Your task to perform on an android device: refresh tabs in the chrome app Image 0: 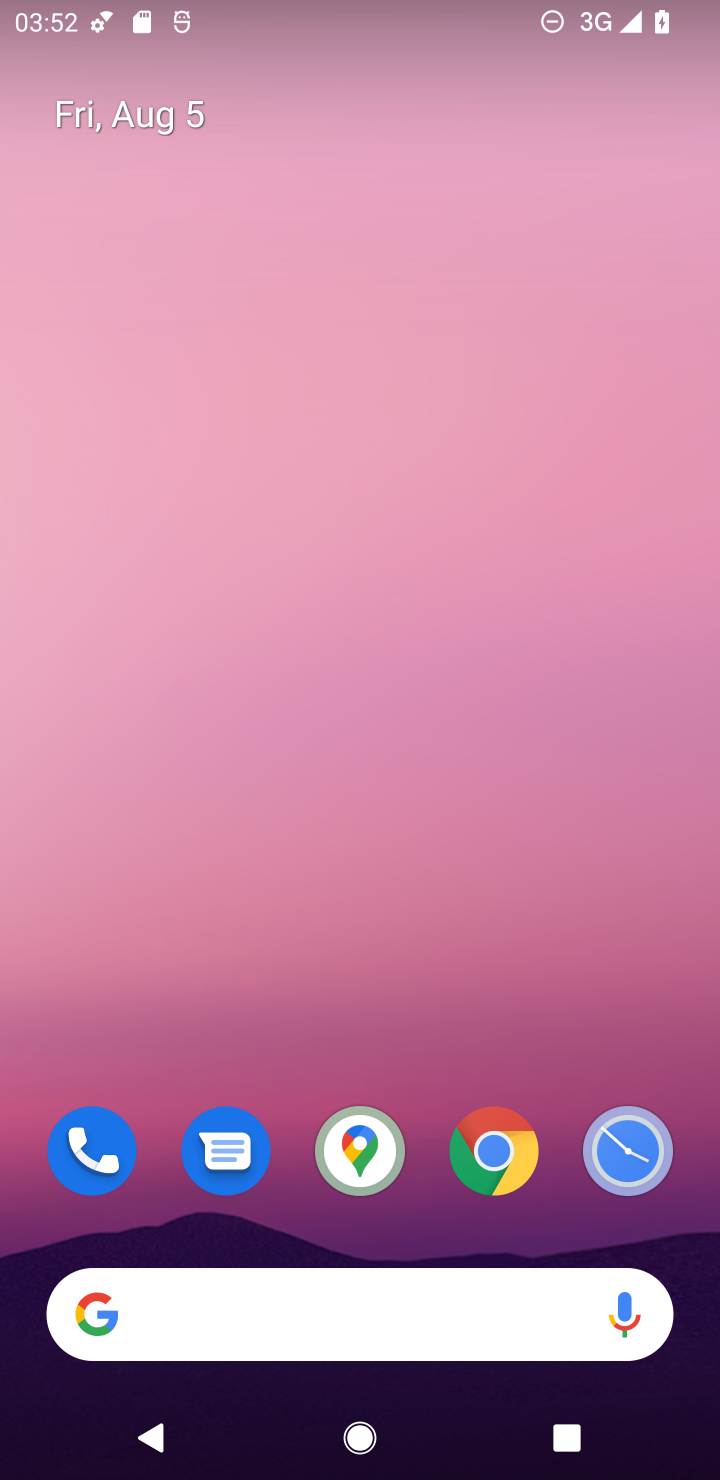
Step 0: click (501, 1142)
Your task to perform on an android device: refresh tabs in the chrome app Image 1: 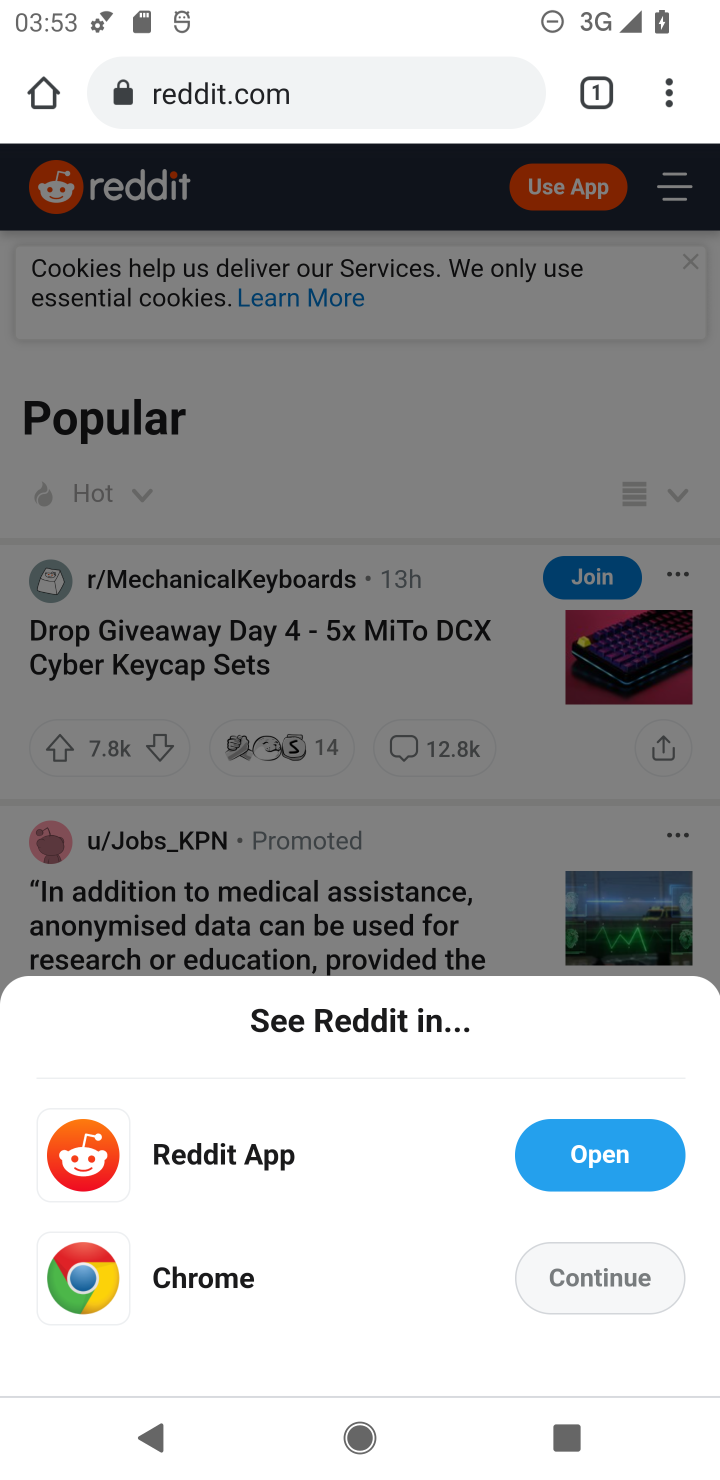
Step 1: click (679, 84)
Your task to perform on an android device: refresh tabs in the chrome app Image 2: 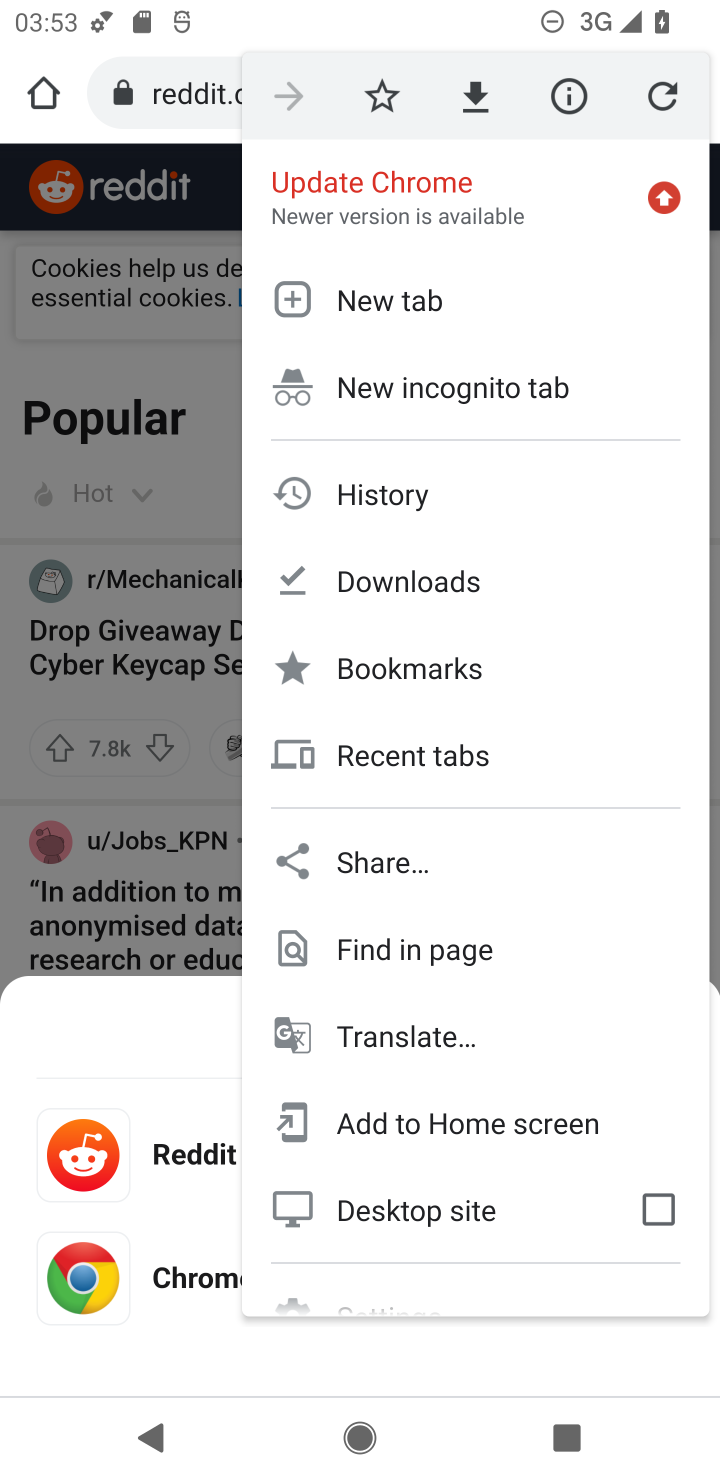
Step 2: click (673, 89)
Your task to perform on an android device: refresh tabs in the chrome app Image 3: 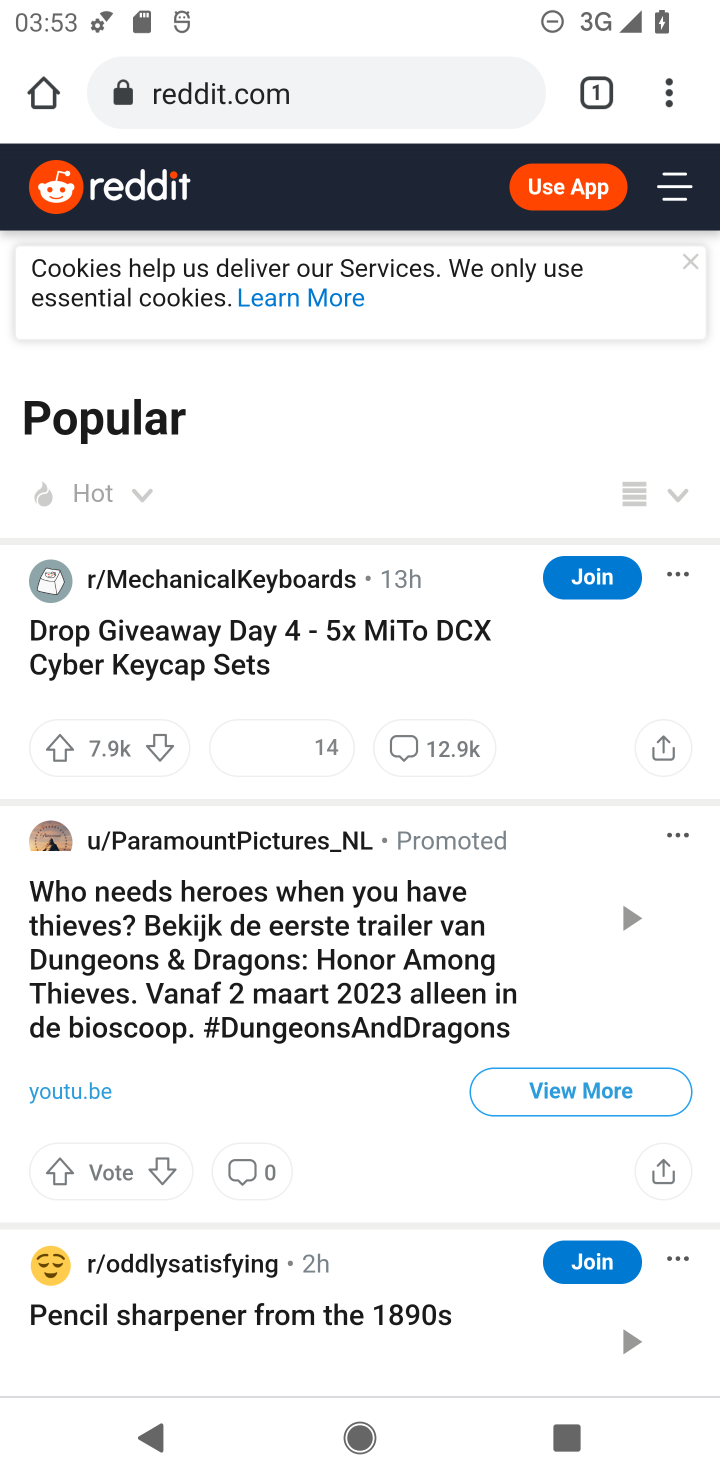
Step 3: task complete